Your task to perform on an android device: open sync settings in chrome Image 0: 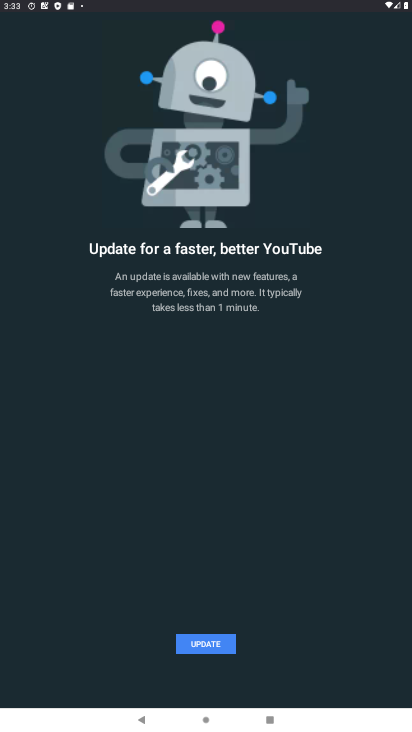
Step 0: press home button
Your task to perform on an android device: open sync settings in chrome Image 1: 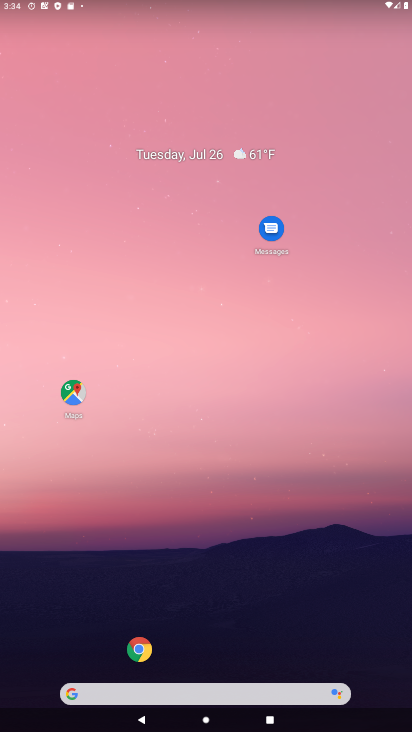
Step 1: click (146, 650)
Your task to perform on an android device: open sync settings in chrome Image 2: 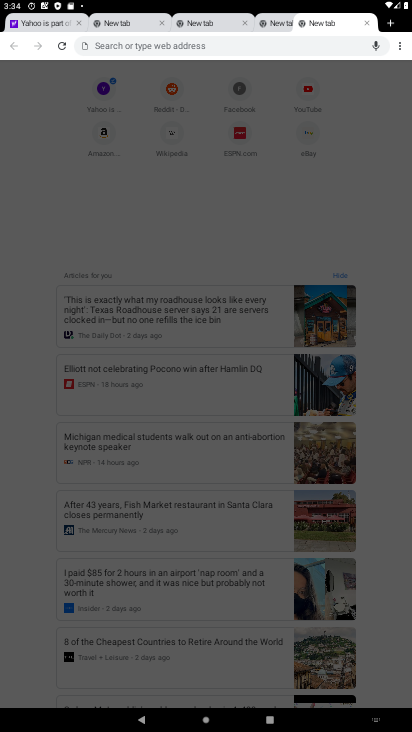
Step 2: click (398, 45)
Your task to perform on an android device: open sync settings in chrome Image 3: 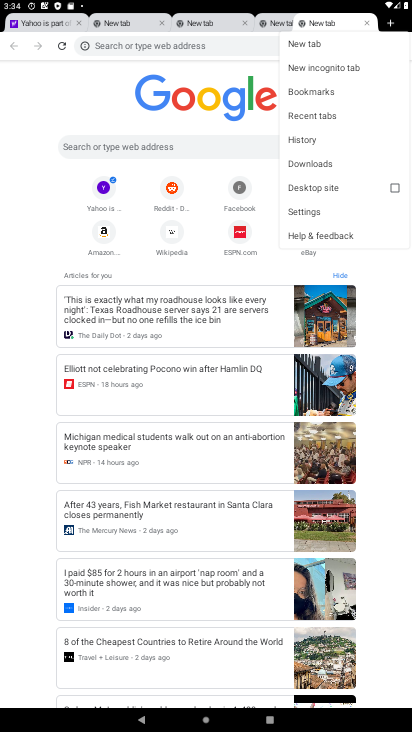
Step 3: click (307, 208)
Your task to perform on an android device: open sync settings in chrome Image 4: 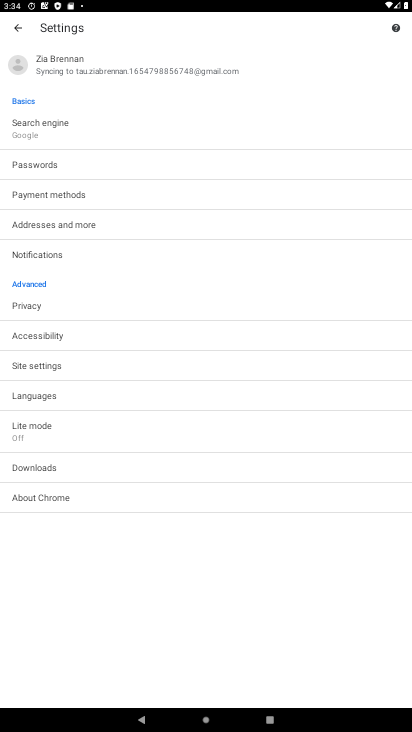
Step 4: click (58, 362)
Your task to perform on an android device: open sync settings in chrome Image 5: 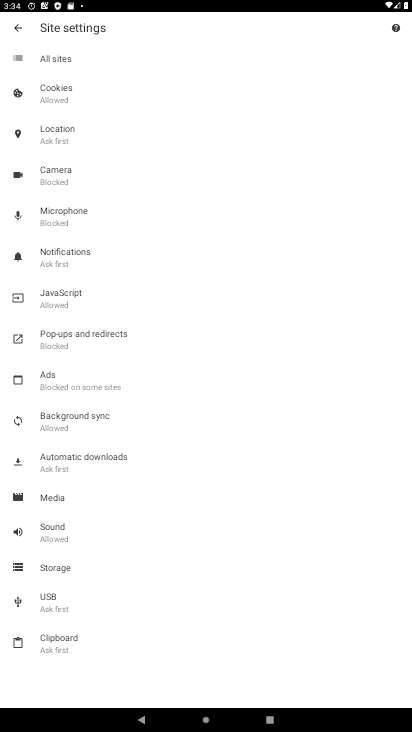
Step 5: drag from (109, 591) to (129, 326)
Your task to perform on an android device: open sync settings in chrome Image 6: 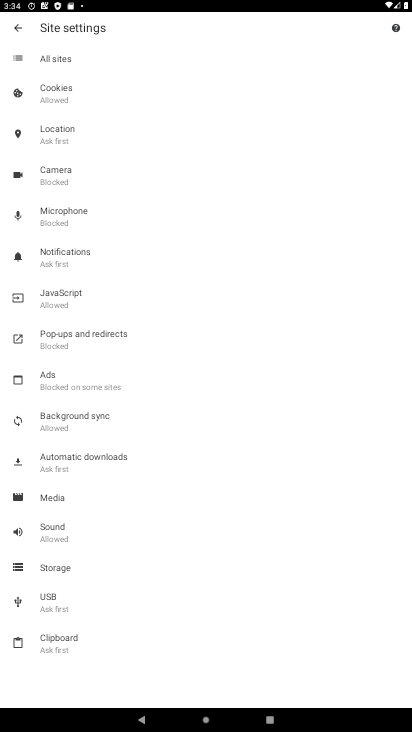
Step 6: click (78, 407)
Your task to perform on an android device: open sync settings in chrome Image 7: 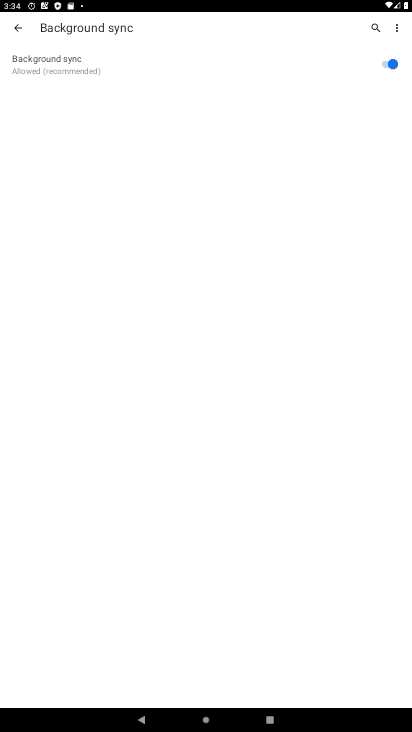
Step 7: task complete